Your task to perform on an android device: clear history in the chrome app Image 0: 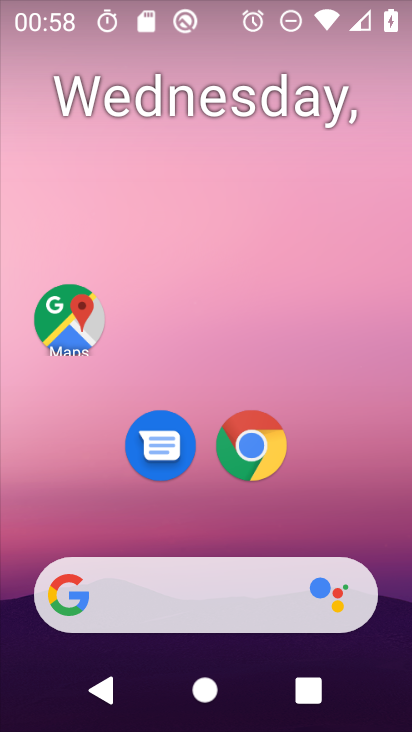
Step 0: click (255, 437)
Your task to perform on an android device: clear history in the chrome app Image 1: 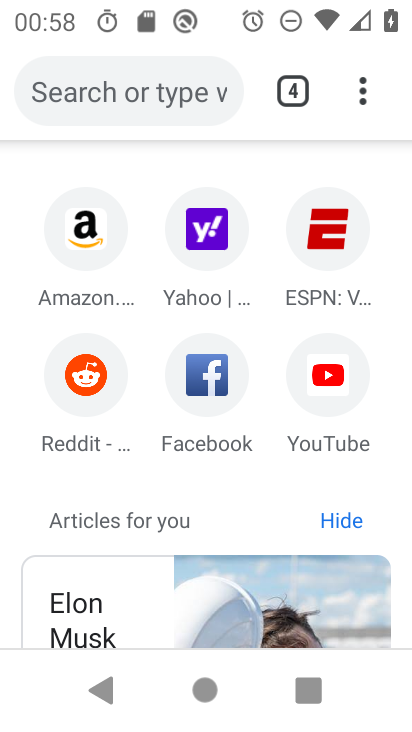
Step 1: click (378, 81)
Your task to perform on an android device: clear history in the chrome app Image 2: 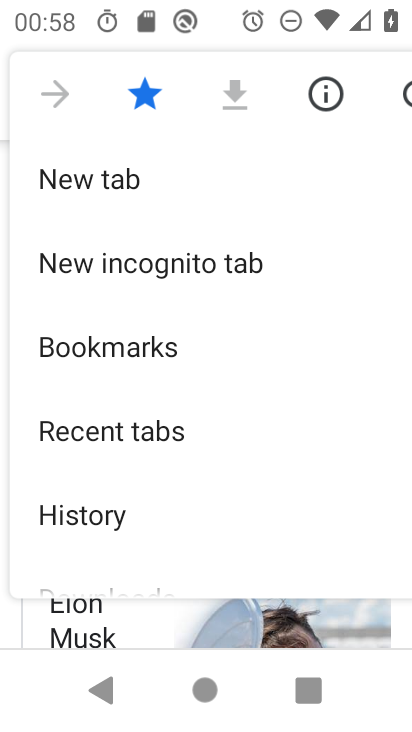
Step 2: click (192, 508)
Your task to perform on an android device: clear history in the chrome app Image 3: 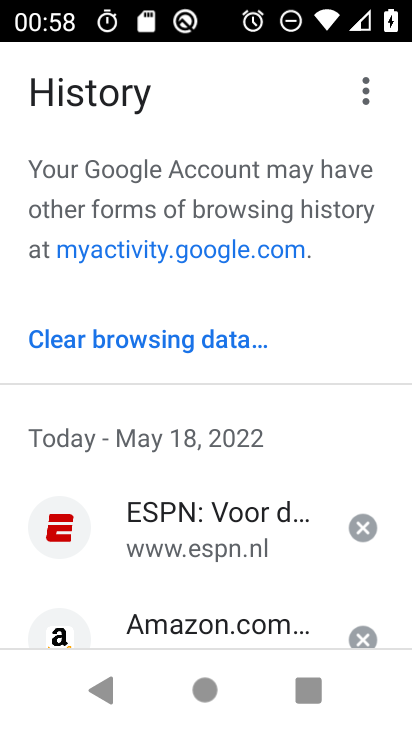
Step 3: click (126, 340)
Your task to perform on an android device: clear history in the chrome app Image 4: 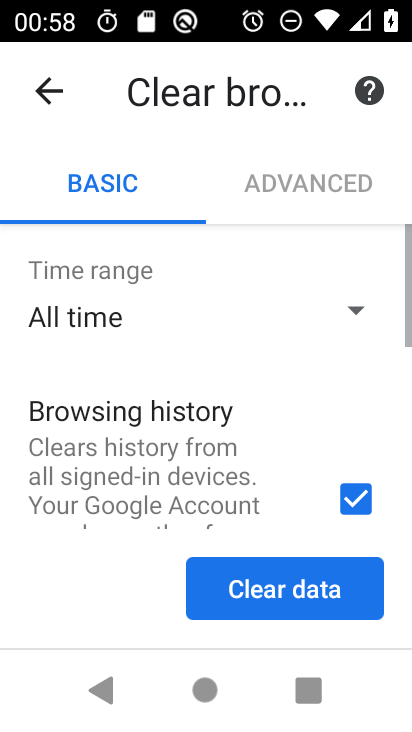
Step 4: click (294, 583)
Your task to perform on an android device: clear history in the chrome app Image 5: 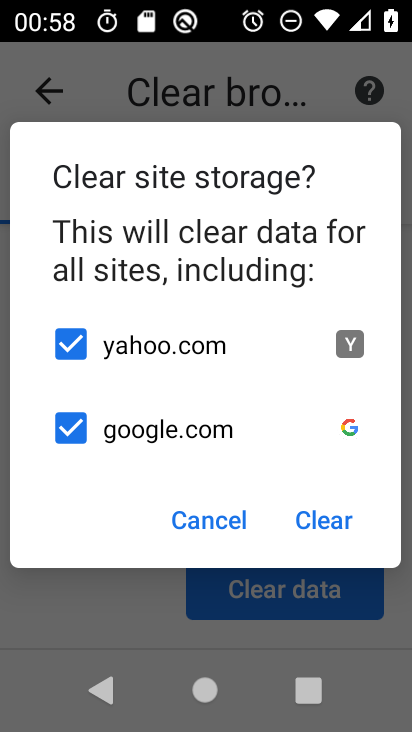
Step 5: click (327, 505)
Your task to perform on an android device: clear history in the chrome app Image 6: 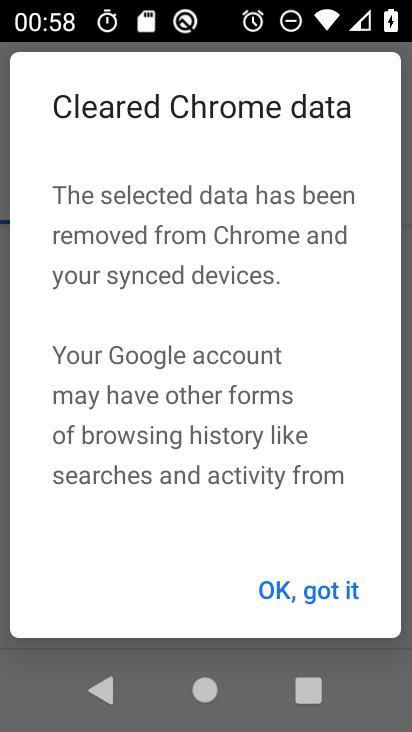
Step 6: task complete